Your task to perform on an android device: What's the weather going to be this weekend? Image 0: 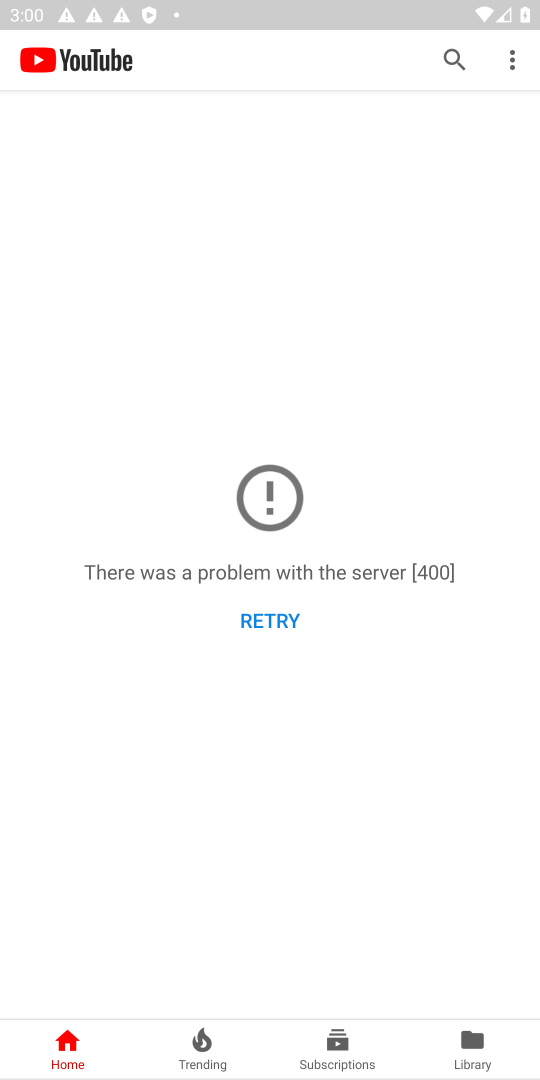
Step 0: press home button
Your task to perform on an android device: What's the weather going to be this weekend? Image 1: 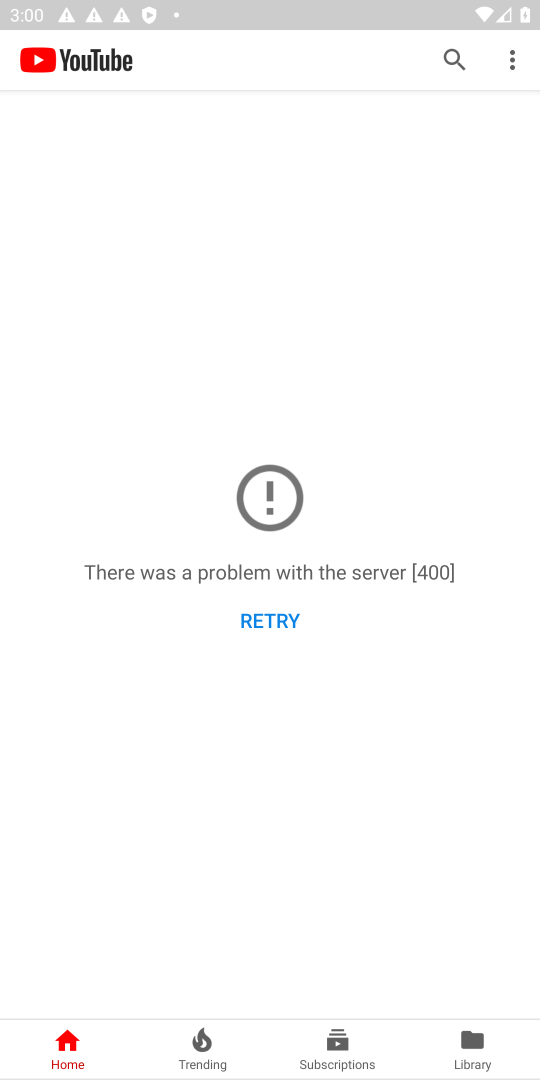
Step 1: click (538, 981)
Your task to perform on an android device: What's the weather going to be this weekend? Image 2: 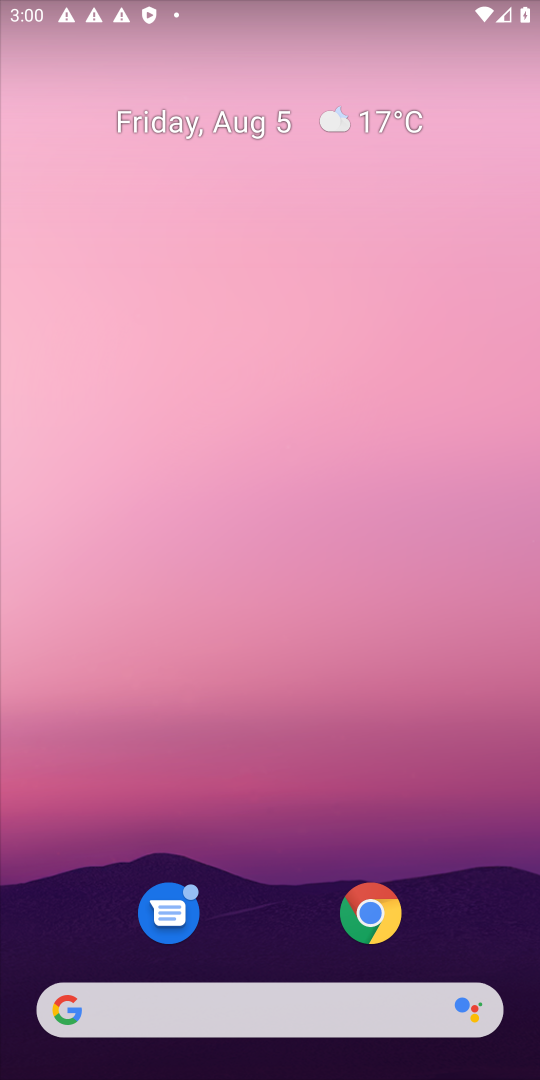
Step 2: click (166, 999)
Your task to perform on an android device: What's the weather going to be this weekend? Image 3: 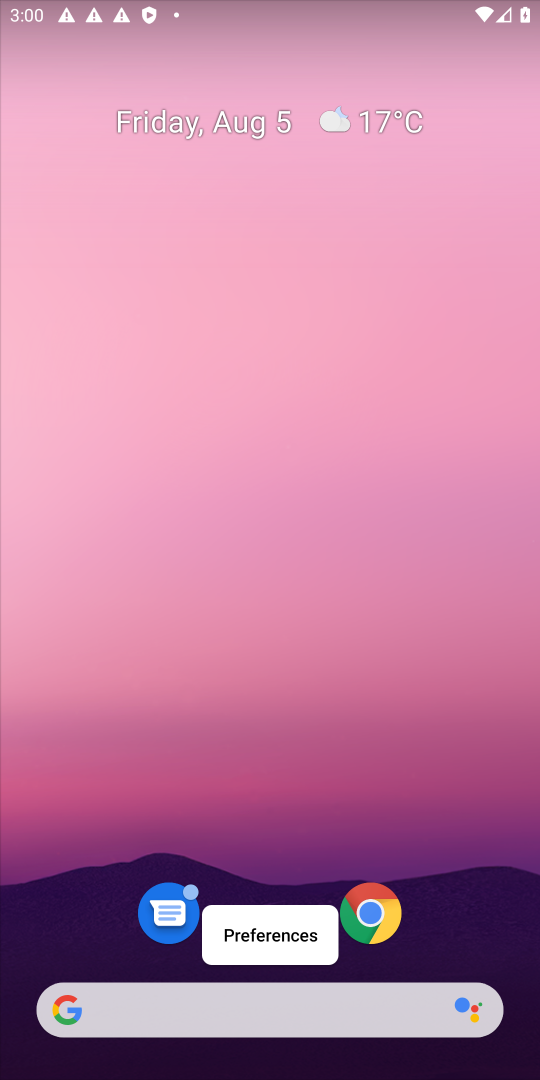
Step 3: click (183, 1013)
Your task to perform on an android device: What's the weather going to be this weekend? Image 4: 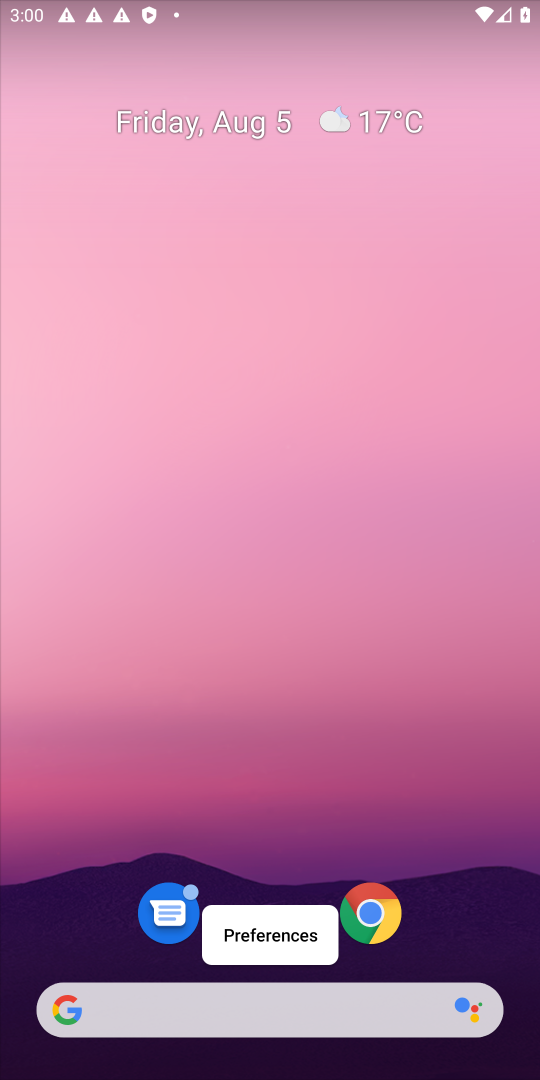
Step 4: click (183, 1015)
Your task to perform on an android device: What's the weather going to be this weekend? Image 5: 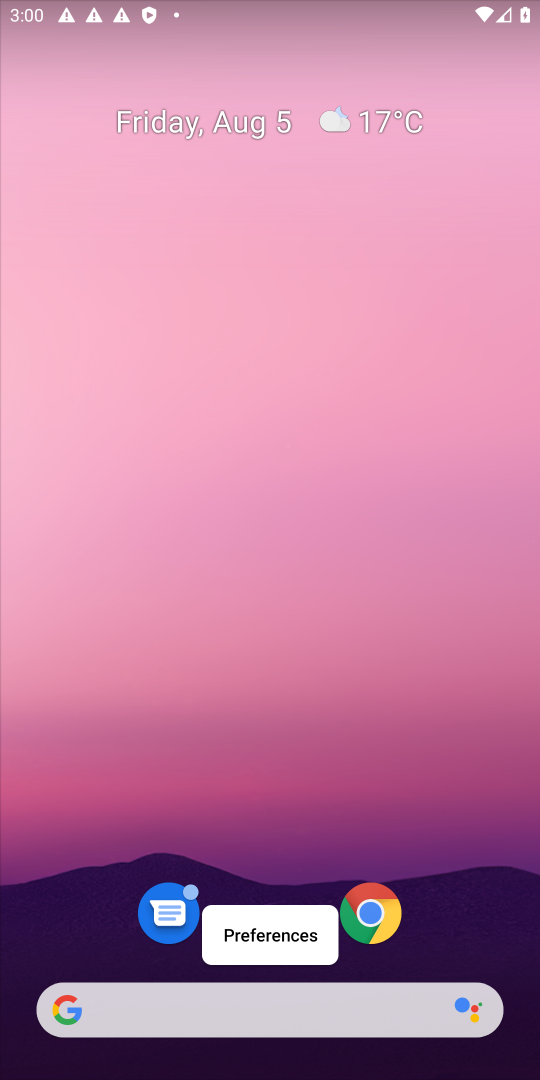
Step 5: click (183, 1015)
Your task to perform on an android device: What's the weather going to be this weekend? Image 6: 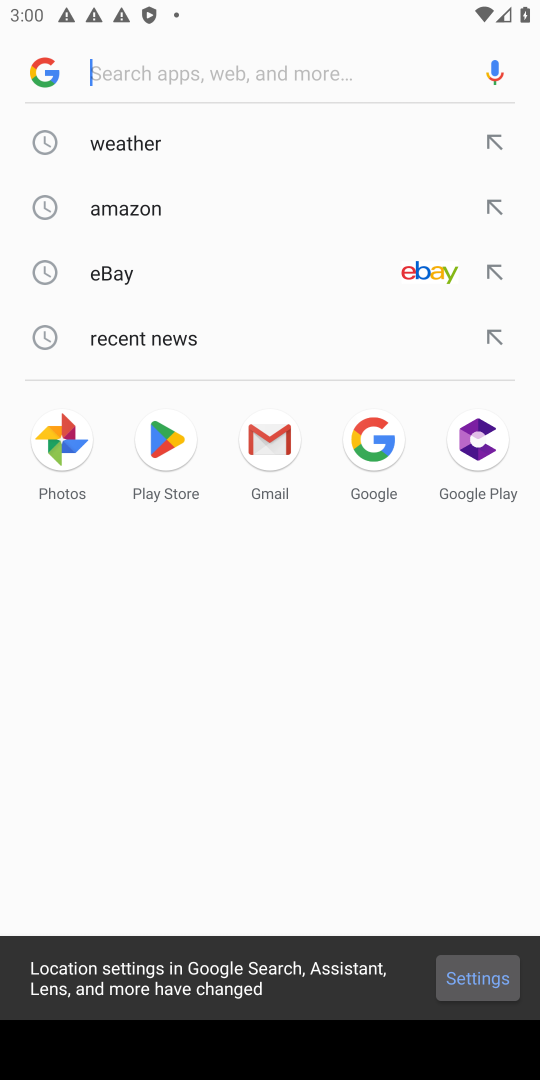
Step 6: click (131, 141)
Your task to perform on an android device: What's the weather going to be this weekend? Image 7: 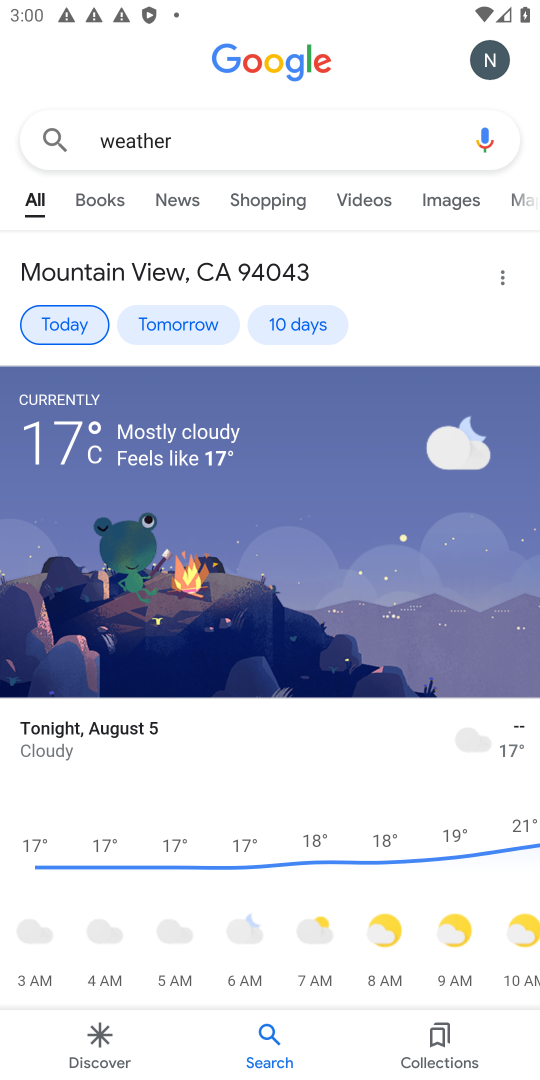
Step 7: click (294, 333)
Your task to perform on an android device: What's the weather going to be this weekend? Image 8: 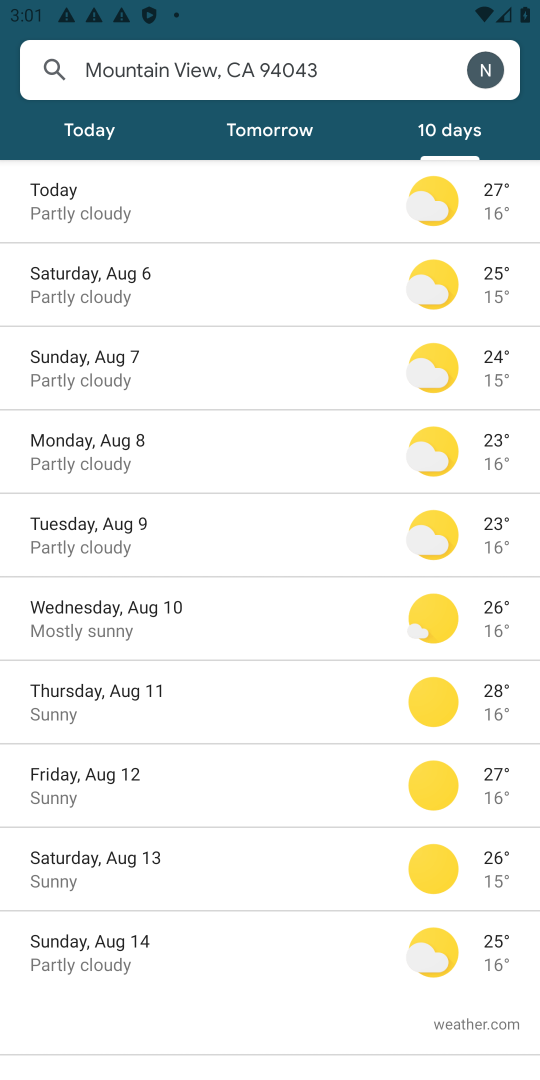
Step 8: click (157, 296)
Your task to perform on an android device: What's the weather going to be this weekend? Image 9: 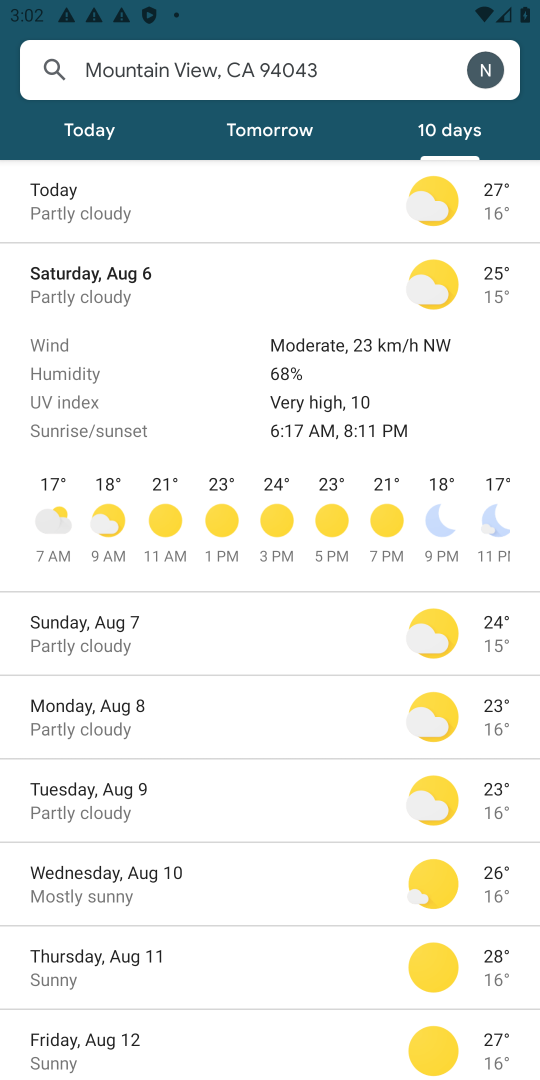
Step 9: task complete